Your task to perform on an android device: see tabs open on other devices in the chrome app Image 0: 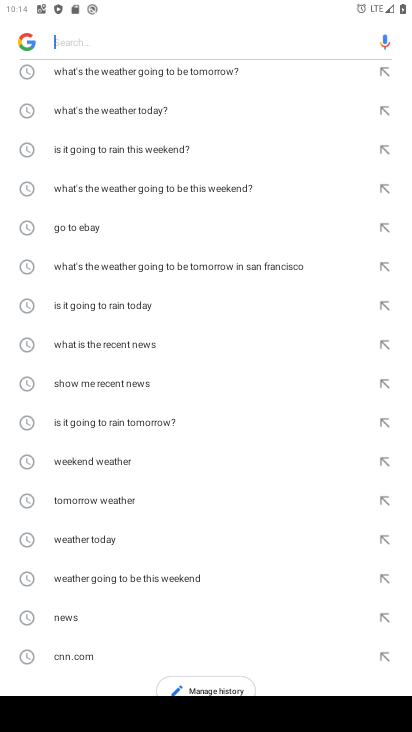
Step 0: press home button
Your task to perform on an android device: see tabs open on other devices in the chrome app Image 1: 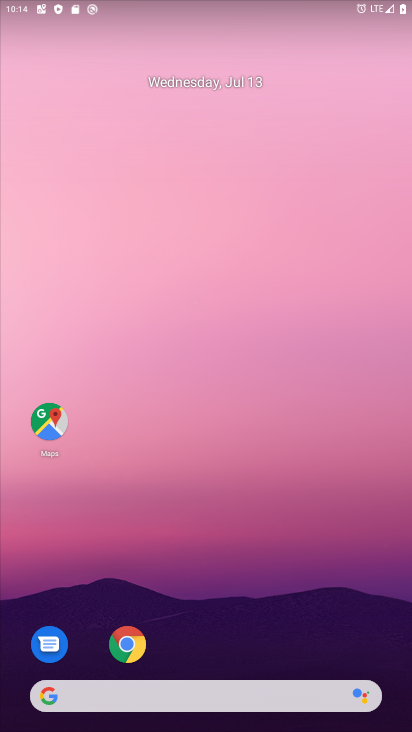
Step 1: drag from (226, 718) to (227, 304)
Your task to perform on an android device: see tabs open on other devices in the chrome app Image 2: 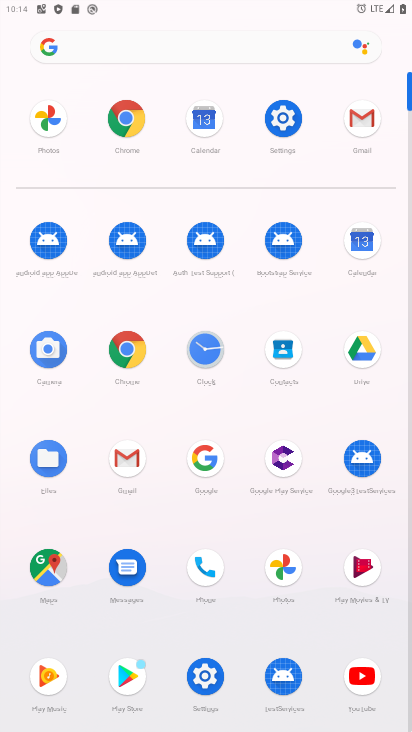
Step 2: click (125, 346)
Your task to perform on an android device: see tabs open on other devices in the chrome app Image 3: 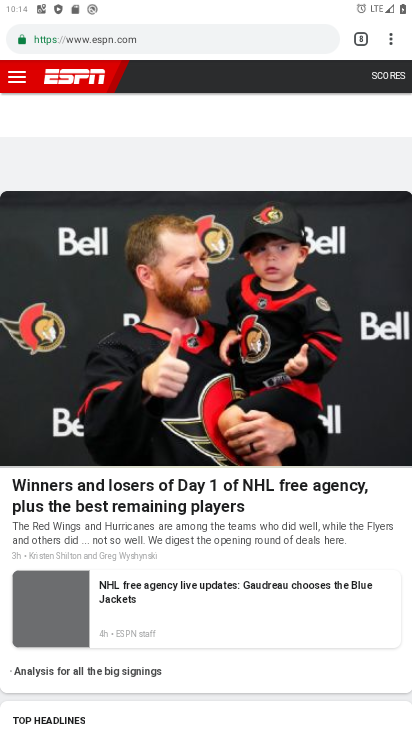
Step 3: click (392, 37)
Your task to perform on an android device: see tabs open on other devices in the chrome app Image 4: 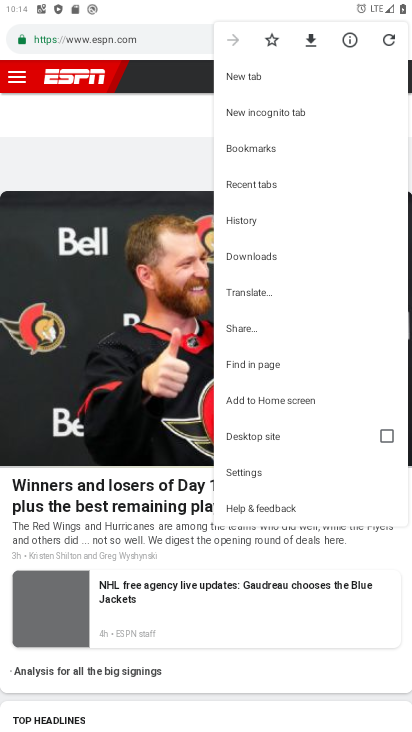
Step 4: click (254, 183)
Your task to perform on an android device: see tabs open on other devices in the chrome app Image 5: 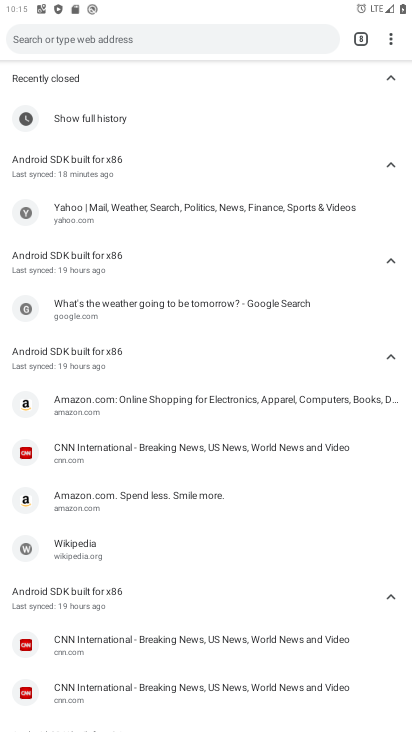
Step 5: task complete